Your task to perform on an android device: turn on the 12-hour format for clock Image 0: 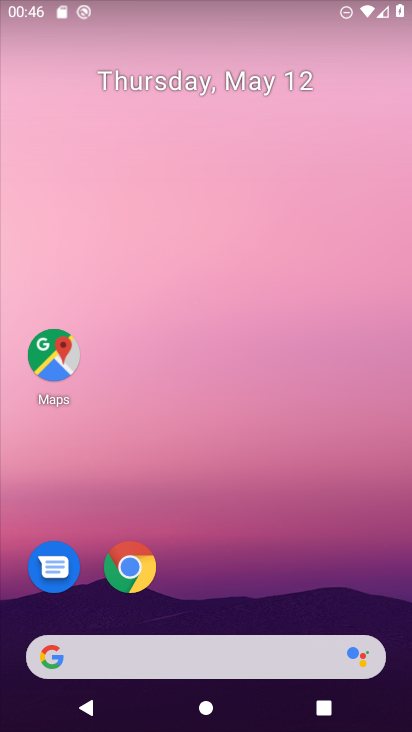
Step 0: drag from (234, 702) to (138, 26)
Your task to perform on an android device: turn on the 12-hour format for clock Image 1: 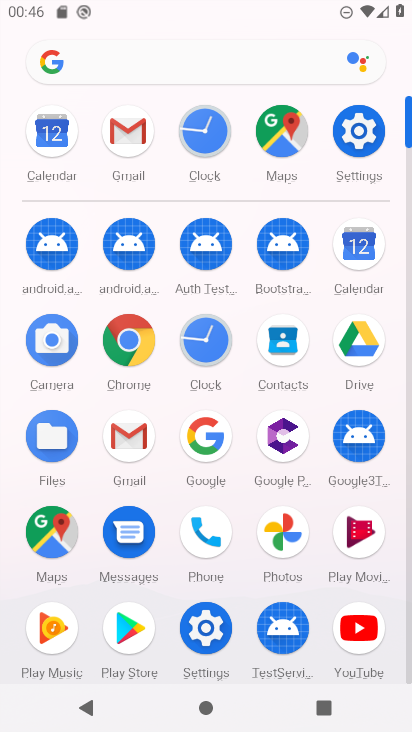
Step 1: click (212, 354)
Your task to perform on an android device: turn on the 12-hour format for clock Image 2: 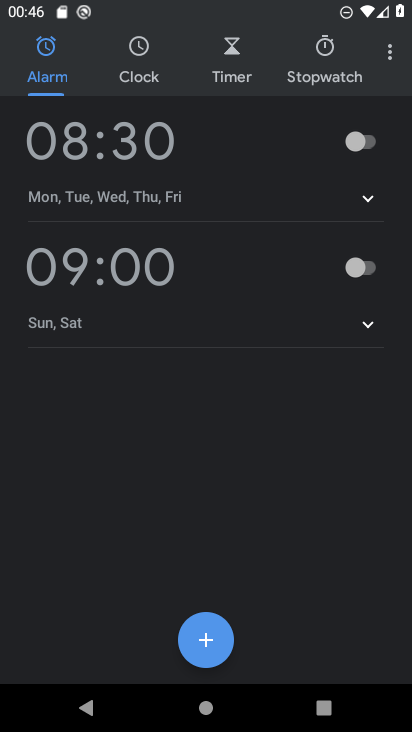
Step 2: click (386, 47)
Your task to perform on an android device: turn on the 12-hour format for clock Image 3: 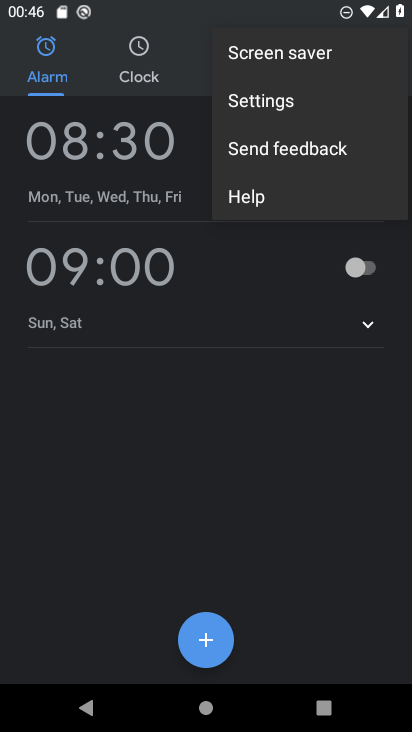
Step 3: click (310, 107)
Your task to perform on an android device: turn on the 12-hour format for clock Image 4: 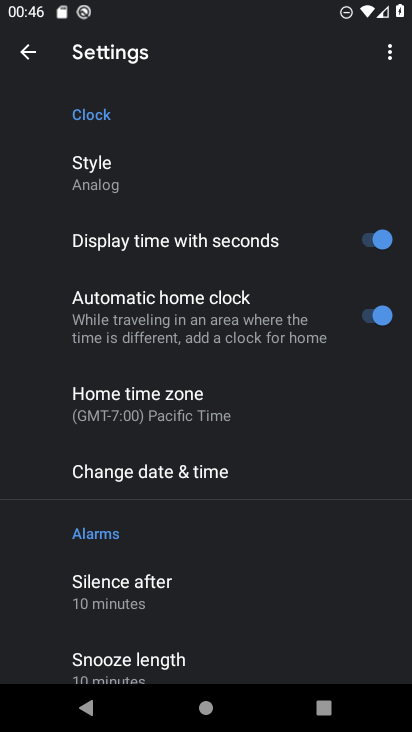
Step 4: click (178, 479)
Your task to perform on an android device: turn on the 12-hour format for clock Image 5: 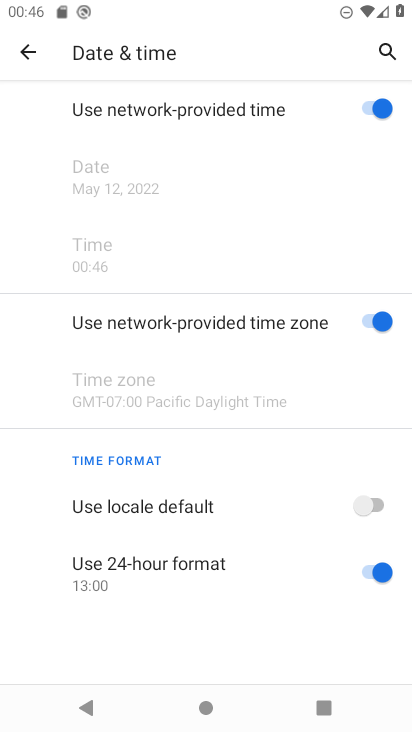
Step 5: click (370, 501)
Your task to perform on an android device: turn on the 12-hour format for clock Image 6: 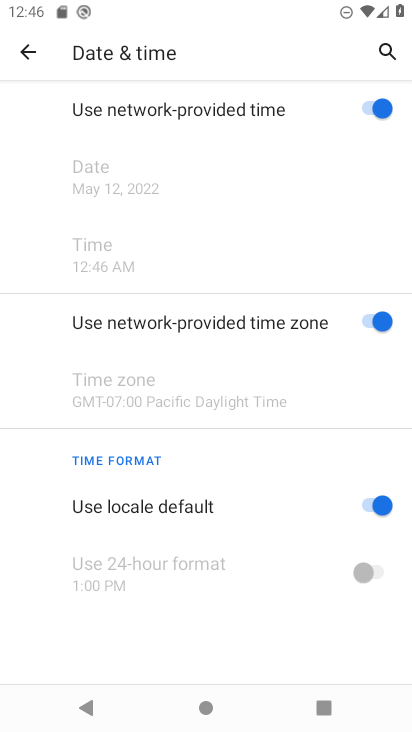
Step 6: task complete